Your task to perform on an android device: What time is it in Berlin? Image 0: 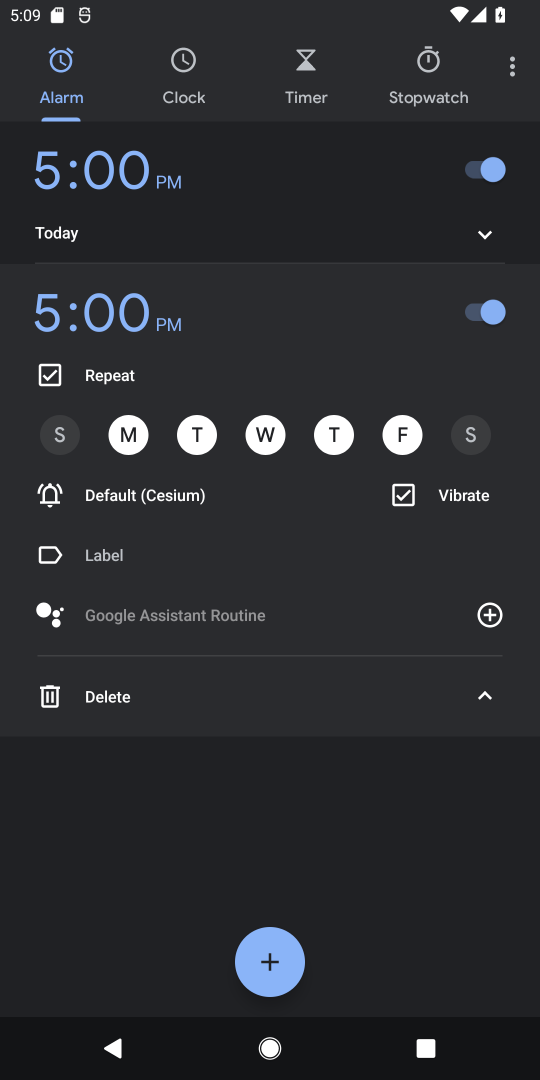
Step 0: press home button
Your task to perform on an android device: What time is it in Berlin? Image 1: 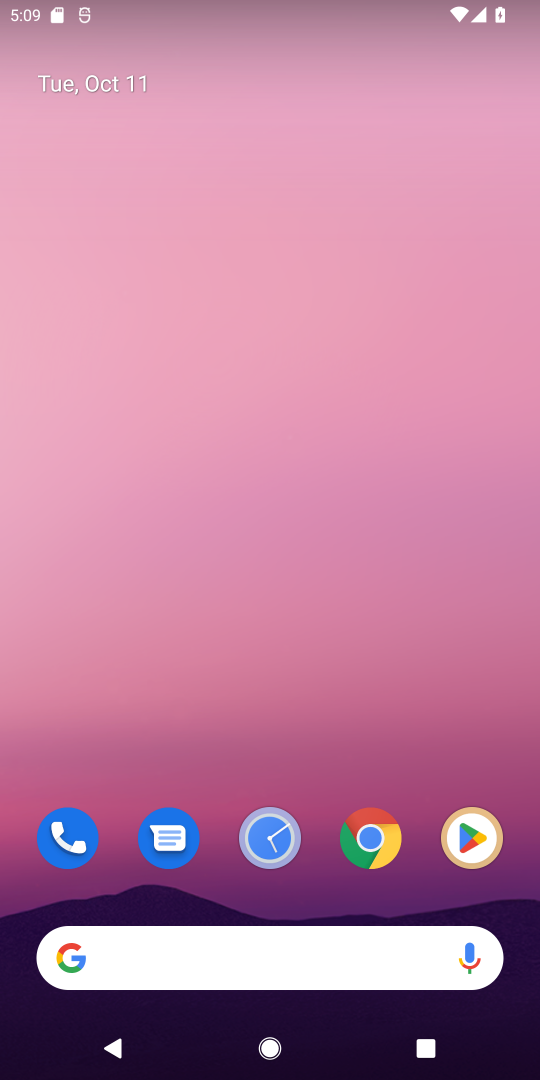
Step 1: click (378, 850)
Your task to perform on an android device: What time is it in Berlin? Image 2: 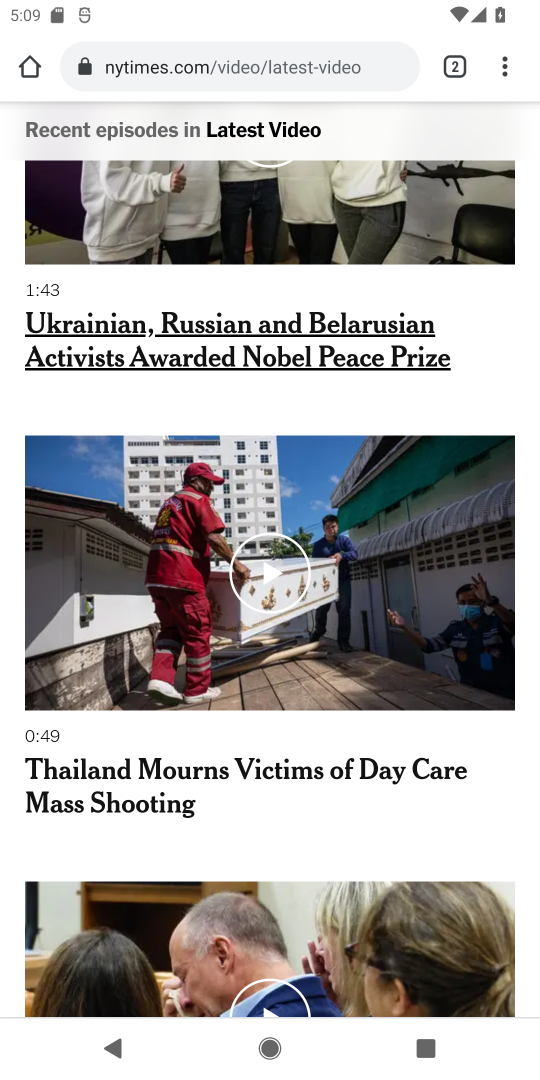
Step 2: click (285, 67)
Your task to perform on an android device: What time is it in Berlin? Image 3: 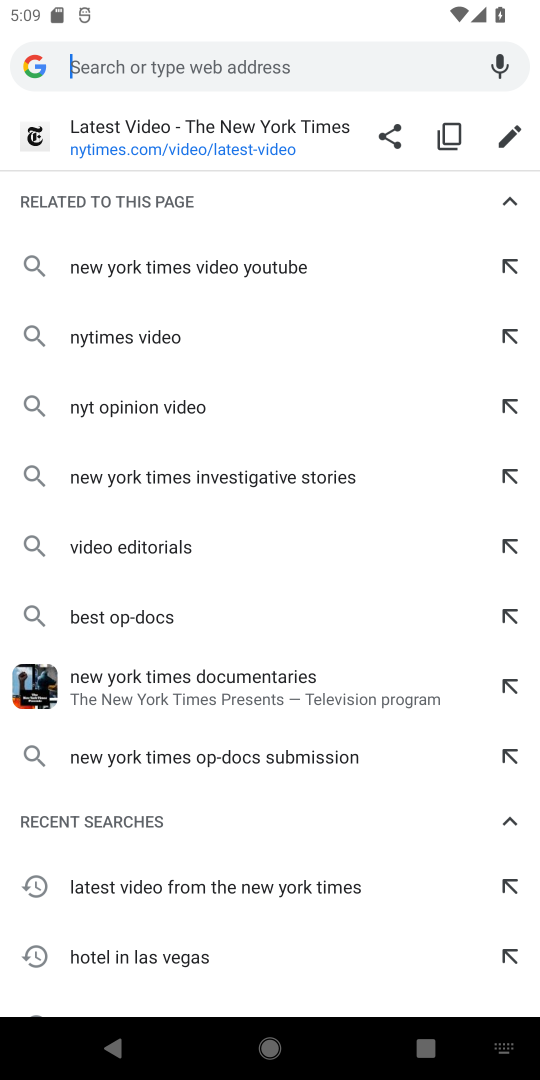
Step 3: type "what time is it in berlin"
Your task to perform on an android device: What time is it in Berlin? Image 4: 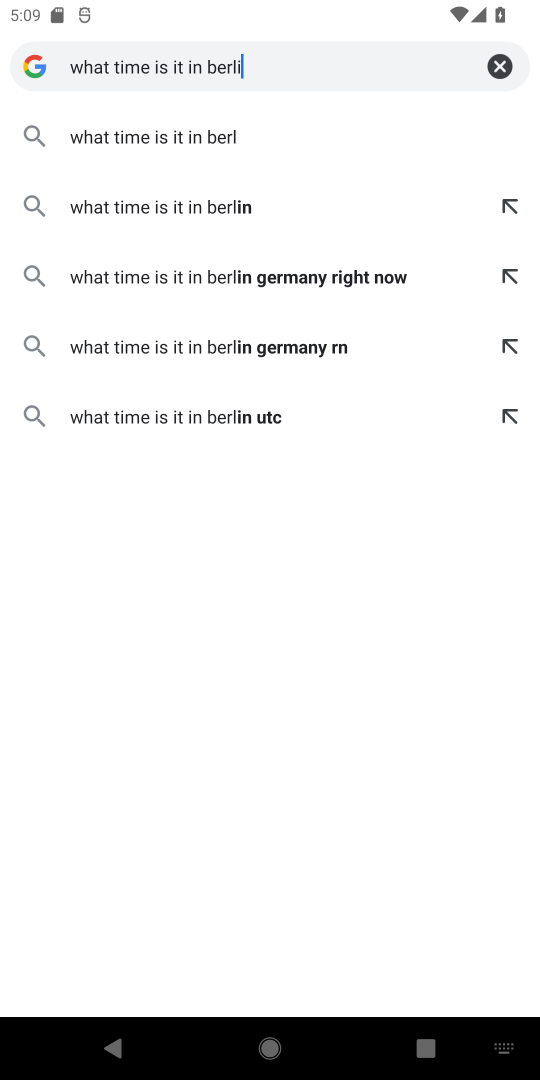
Step 4: type ""
Your task to perform on an android device: What time is it in Berlin? Image 5: 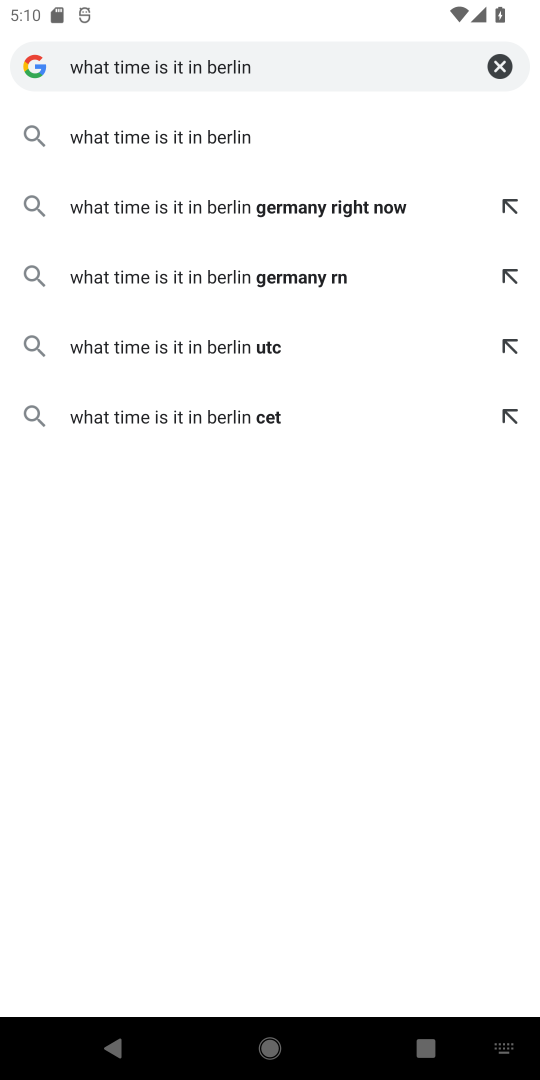
Step 5: click (161, 134)
Your task to perform on an android device: What time is it in Berlin? Image 6: 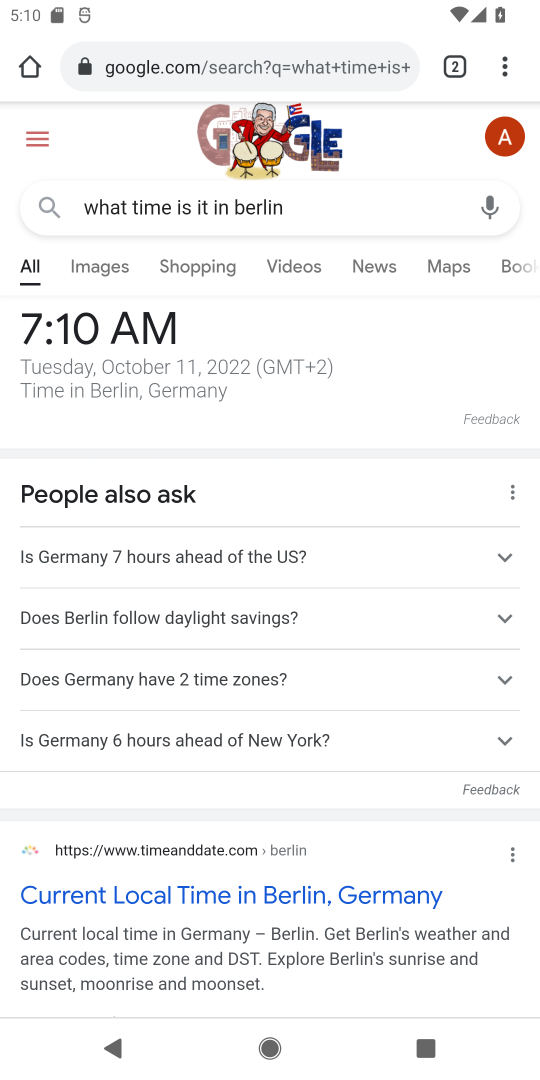
Step 6: drag from (370, 781) to (427, 323)
Your task to perform on an android device: What time is it in Berlin? Image 7: 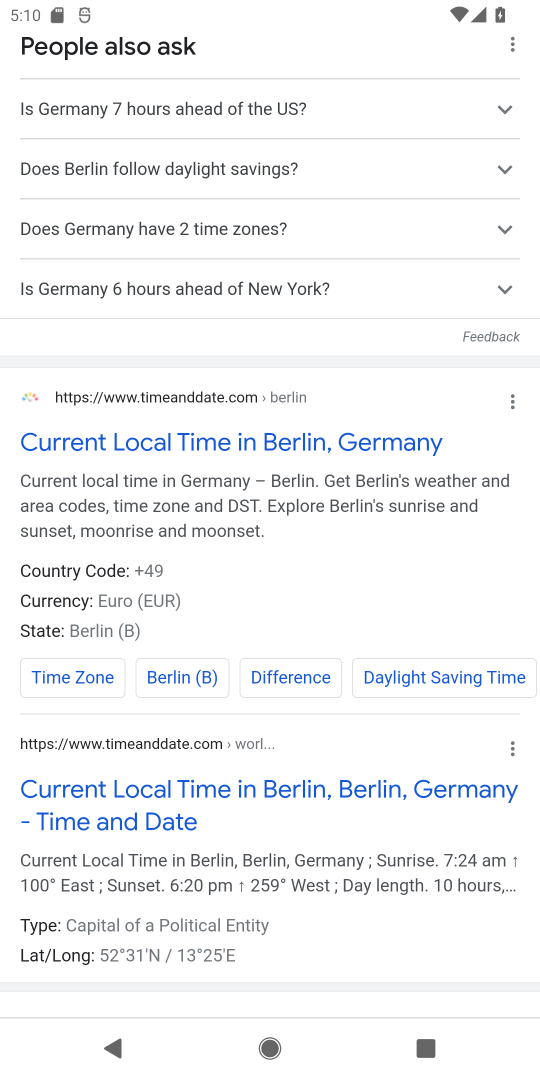
Step 7: click (148, 797)
Your task to perform on an android device: What time is it in Berlin? Image 8: 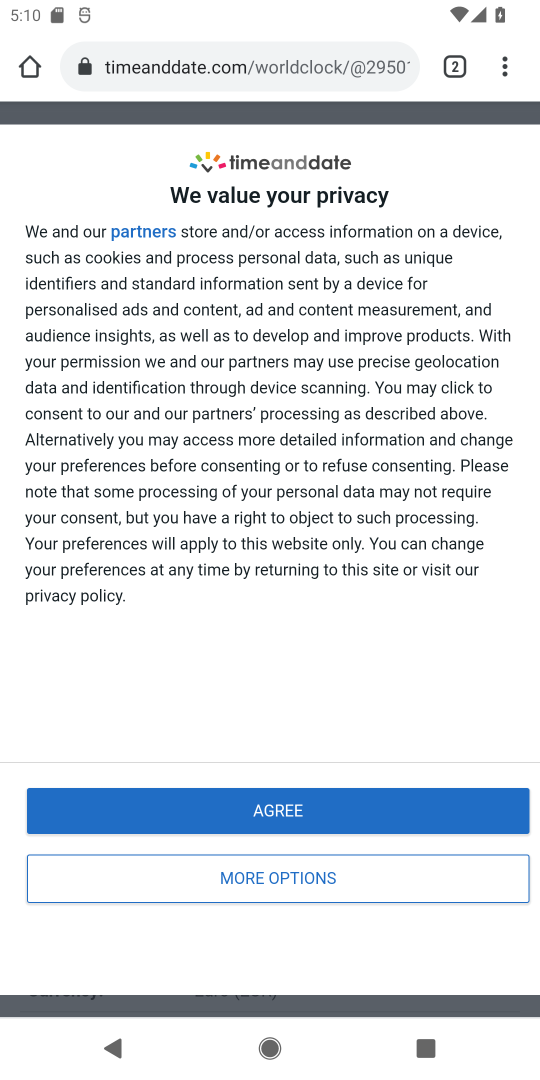
Step 8: click (286, 815)
Your task to perform on an android device: What time is it in Berlin? Image 9: 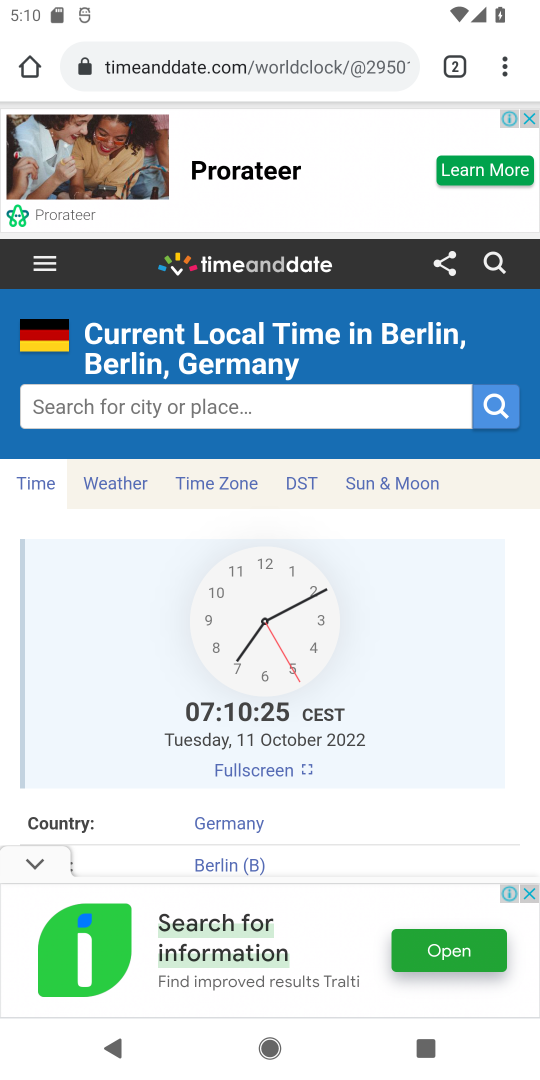
Step 9: drag from (435, 728) to (483, 306)
Your task to perform on an android device: What time is it in Berlin? Image 10: 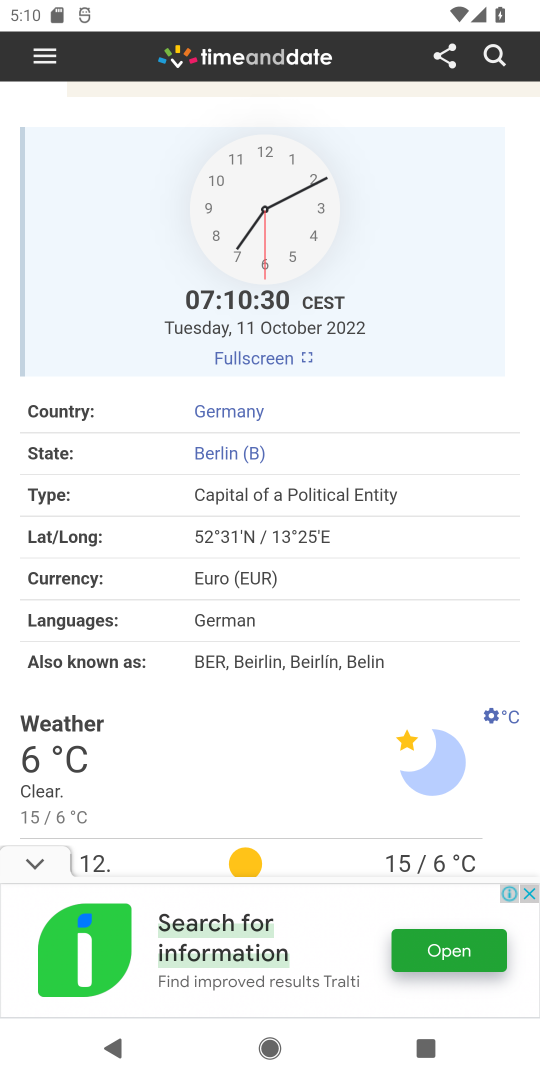
Step 10: drag from (279, 742) to (377, 394)
Your task to perform on an android device: What time is it in Berlin? Image 11: 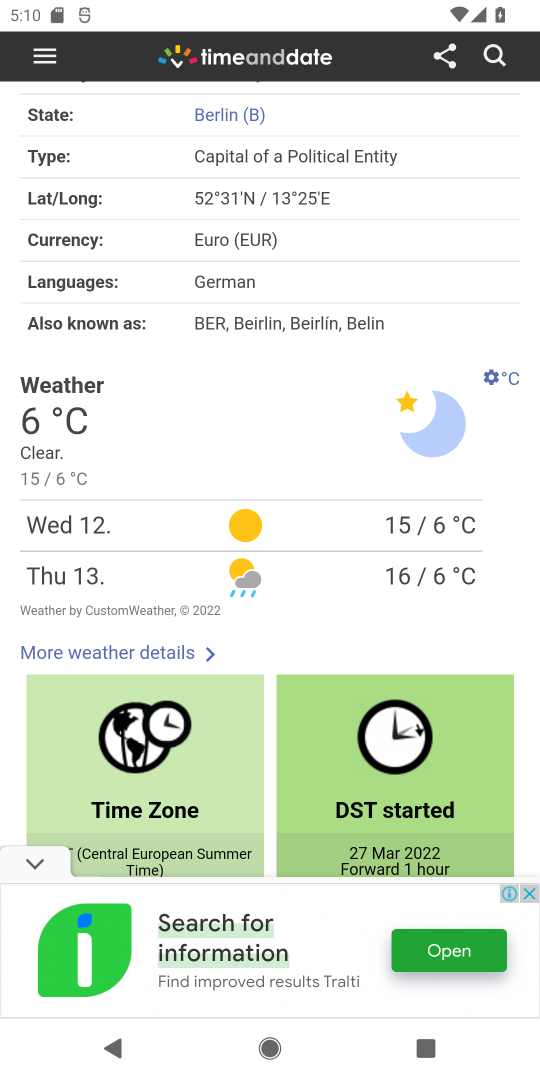
Step 11: drag from (113, 731) to (261, 491)
Your task to perform on an android device: What time is it in Berlin? Image 12: 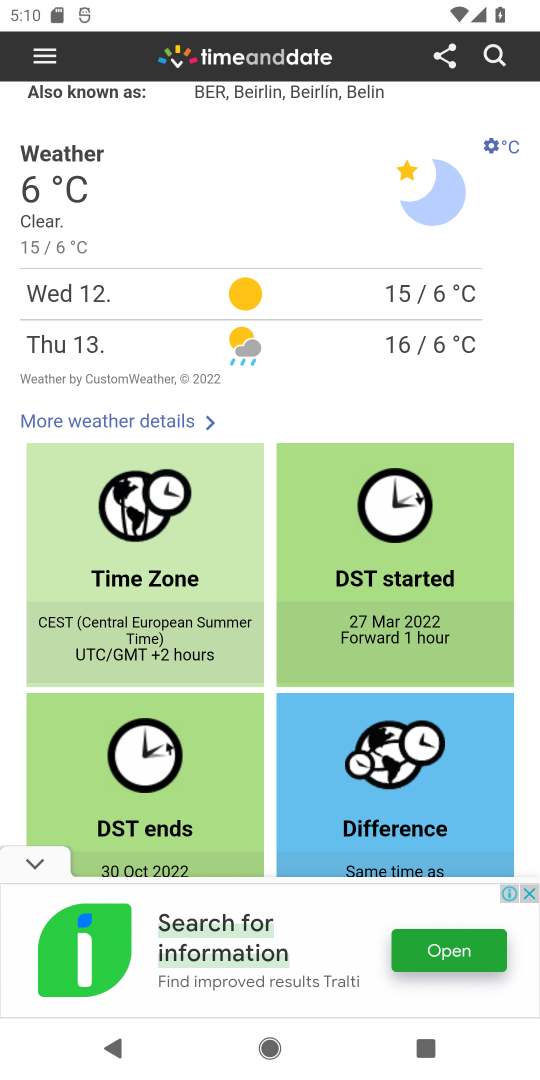
Step 12: click (529, 889)
Your task to perform on an android device: What time is it in Berlin? Image 13: 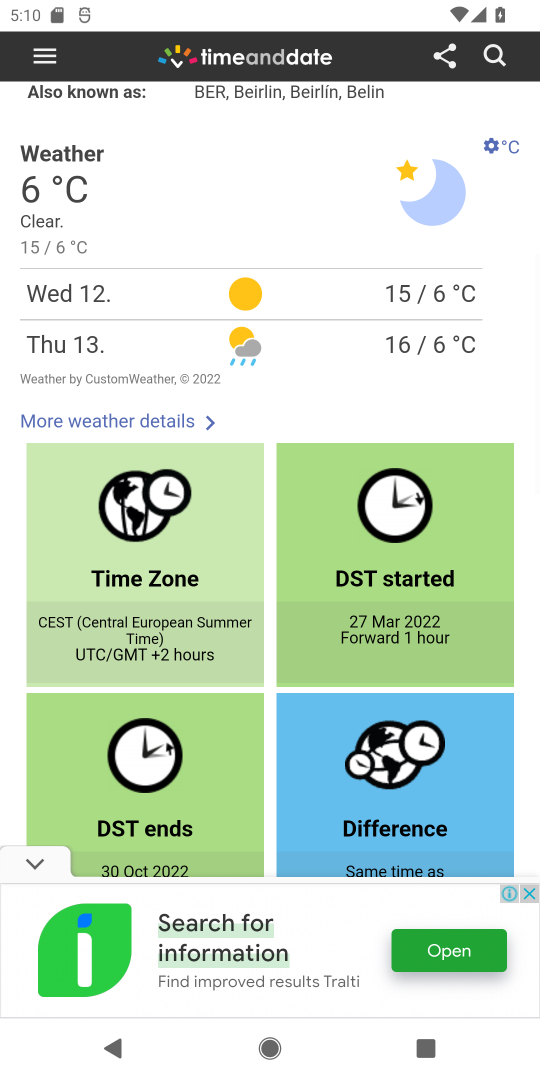
Step 13: click (532, 894)
Your task to perform on an android device: What time is it in Berlin? Image 14: 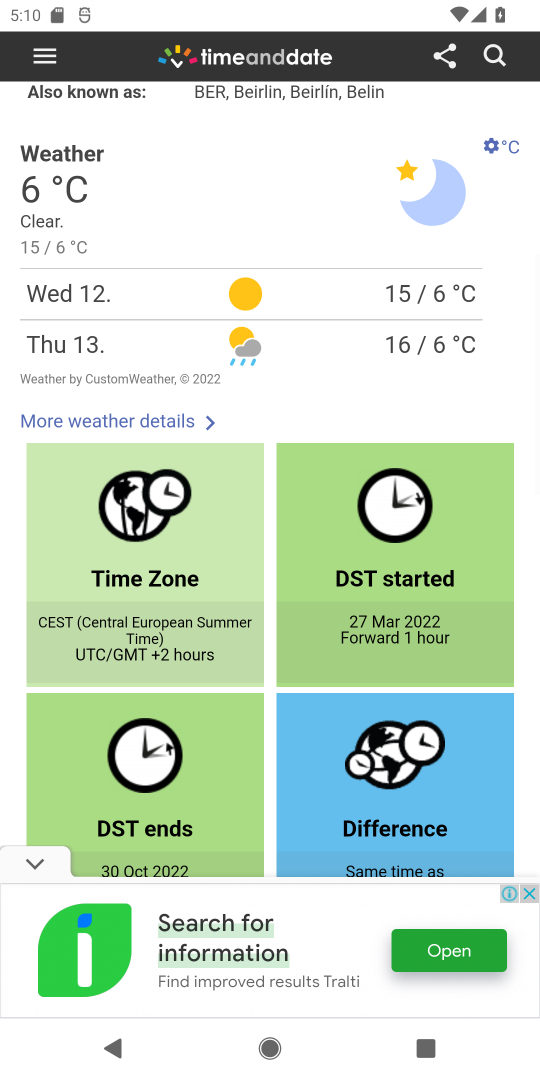
Step 14: click (531, 898)
Your task to perform on an android device: What time is it in Berlin? Image 15: 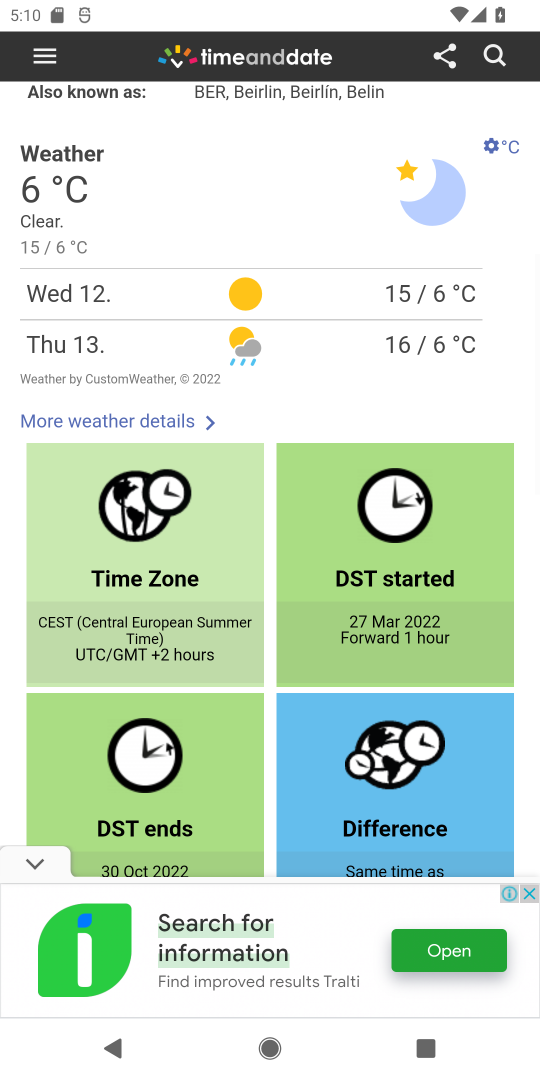
Step 15: task complete